Your task to perform on an android device: see sites visited before in the chrome app Image 0: 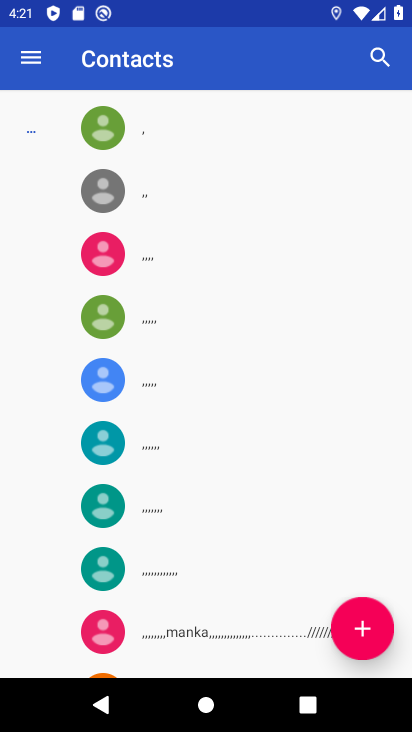
Step 0: press back button
Your task to perform on an android device: see sites visited before in the chrome app Image 1: 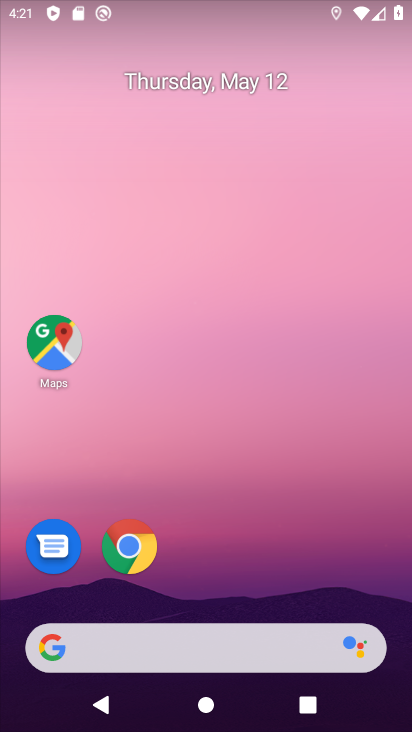
Step 1: click (125, 538)
Your task to perform on an android device: see sites visited before in the chrome app Image 2: 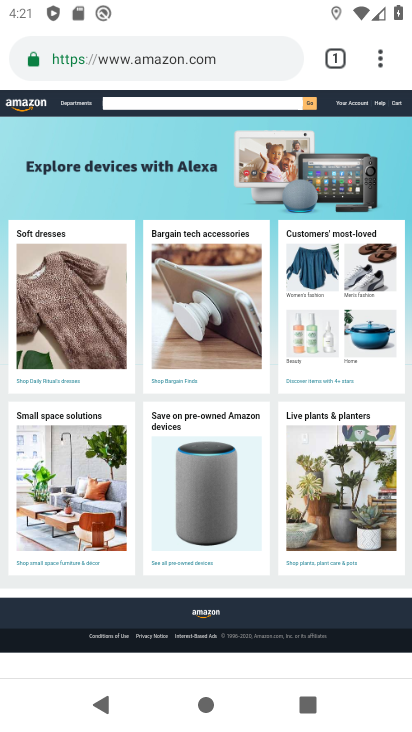
Step 2: task complete